Your task to perform on an android device: Search for seafood restaurants on Google Maps Image 0: 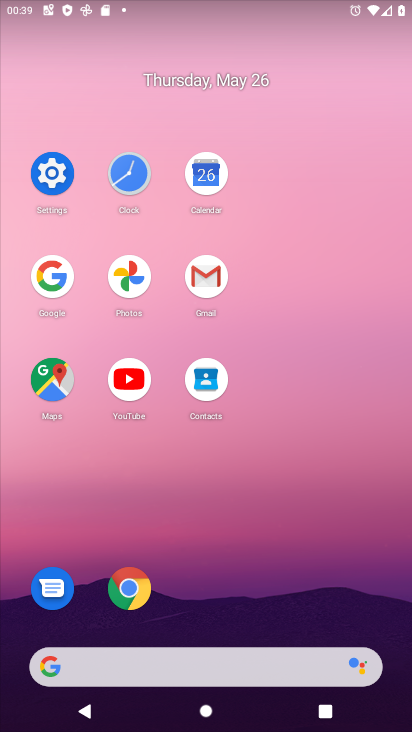
Step 0: click (59, 395)
Your task to perform on an android device: Search for seafood restaurants on Google Maps Image 1: 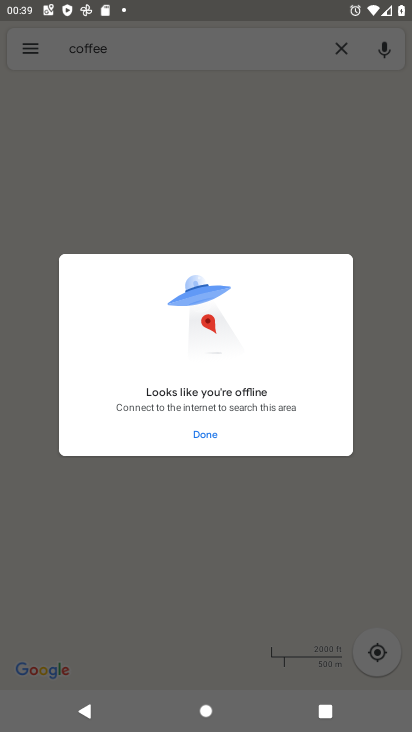
Step 1: click (196, 440)
Your task to perform on an android device: Search for seafood restaurants on Google Maps Image 2: 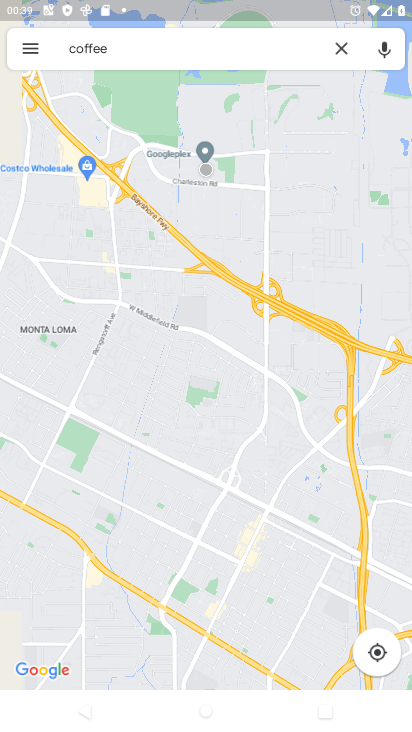
Step 2: click (166, 61)
Your task to perform on an android device: Search for seafood restaurants on Google Maps Image 3: 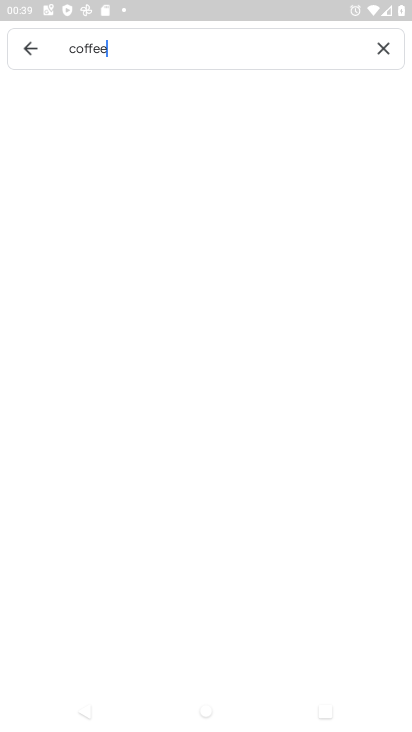
Step 3: click (345, 44)
Your task to perform on an android device: Search for seafood restaurants on Google Maps Image 4: 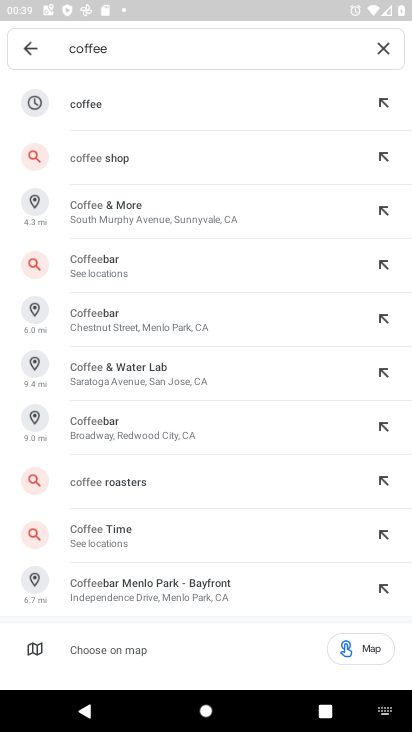
Step 4: click (384, 46)
Your task to perform on an android device: Search for seafood restaurants on Google Maps Image 5: 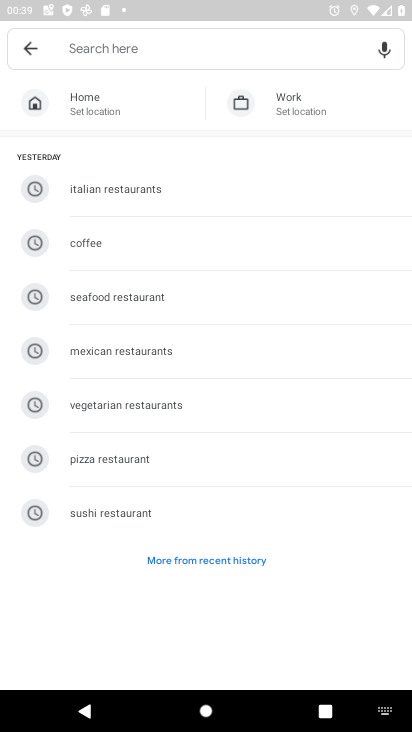
Step 5: click (122, 294)
Your task to perform on an android device: Search for seafood restaurants on Google Maps Image 6: 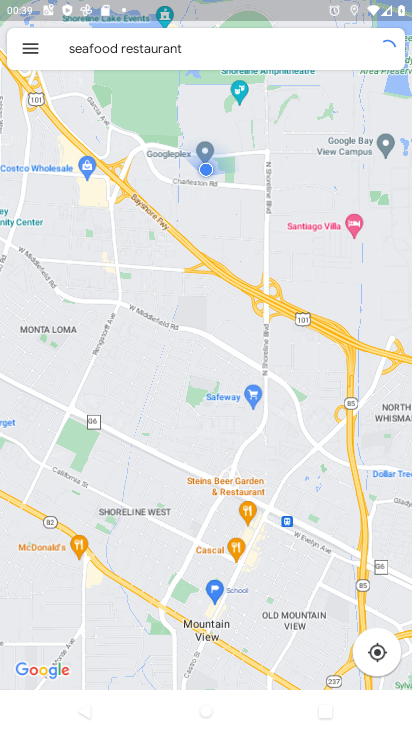
Step 6: task complete